Your task to perform on an android device: empty trash in the gmail app Image 0: 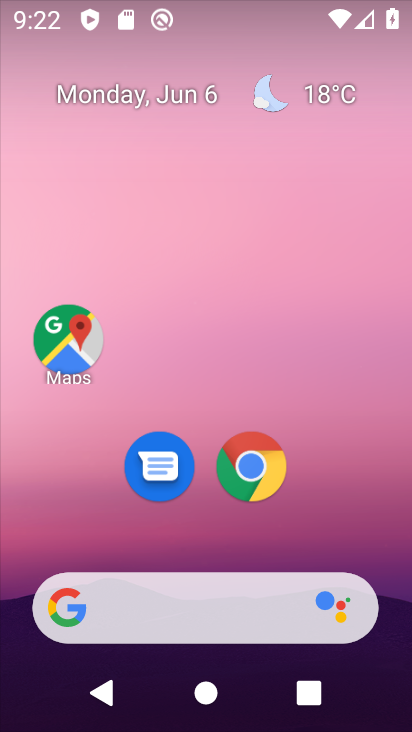
Step 0: drag from (200, 530) to (254, 113)
Your task to perform on an android device: empty trash in the gmail app Image 1: 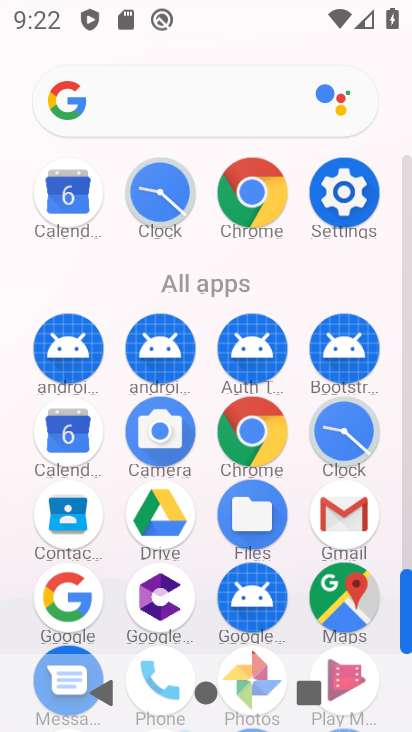
Step 1: click (343, 516)
Your task to perform on an android device: empty trash in the gmail app Image 2: 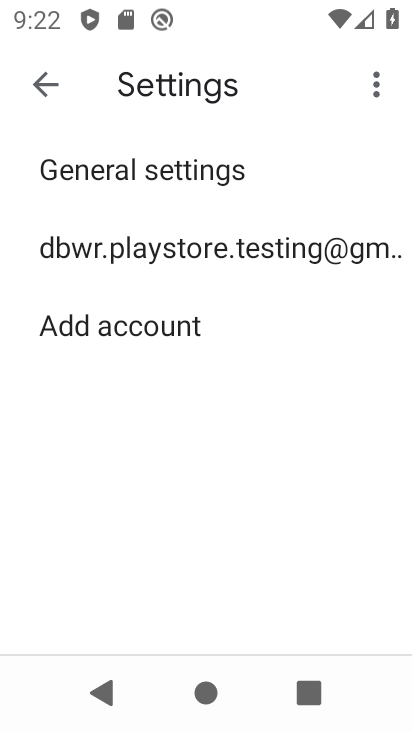
Step 2: click (41, 83)
Your task to perform on an android device: empty trash in the gmail app Image 3: 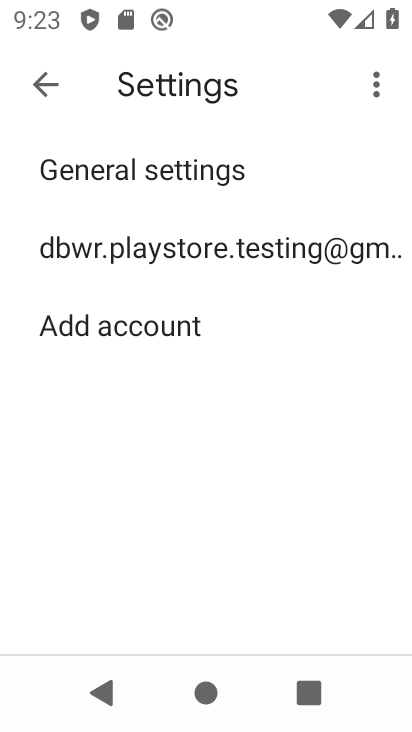
Step 3: click (17, 83)
Your task to perform on an android device: empty trash in the gmail app Image 4: 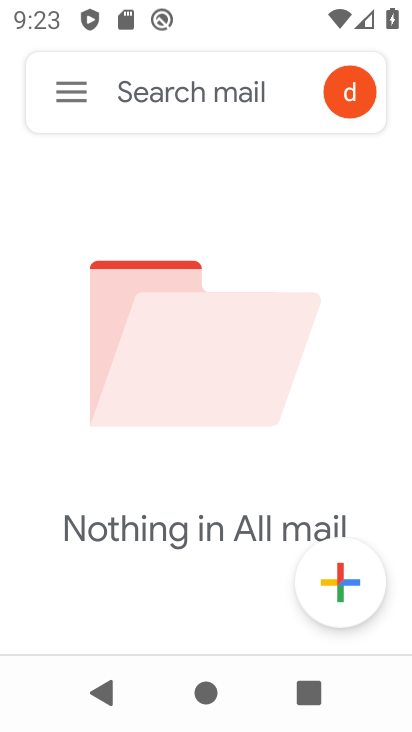
Step 4: click (61, 95)
Your task to perform on an android device: empty trash in the gmail app Image 5: 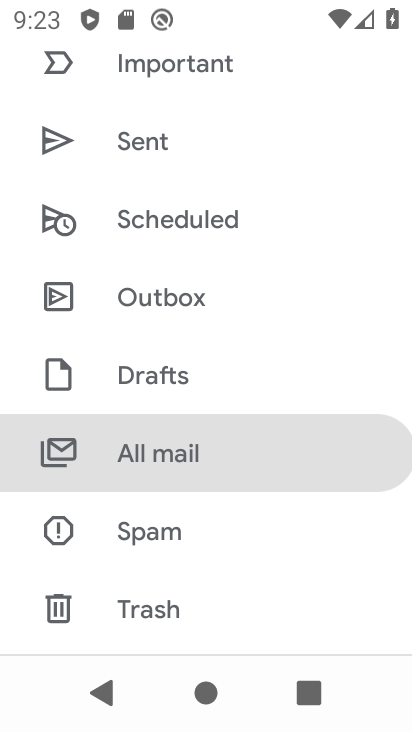
Step 5: click (159, 618)
Your task to perform on an android device: empty trash in the gmail app Image 6: 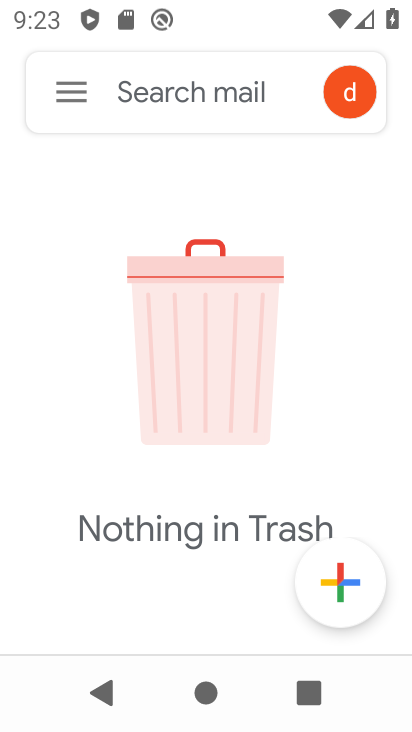
Step 6: task complete